Your task to perform on an android device: Open Google Maps and go to "Timeline" Image 0: 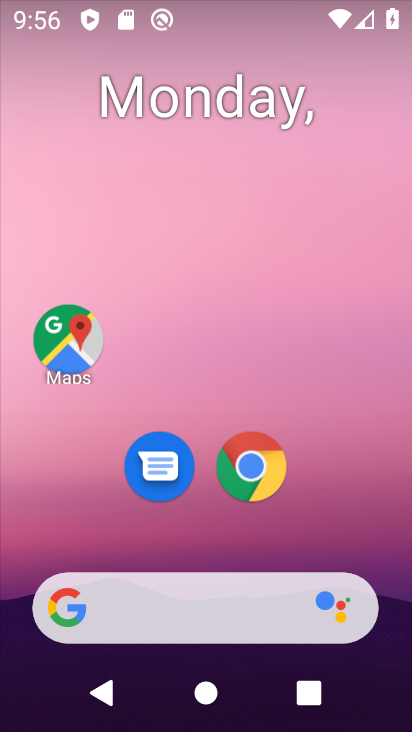
Step 0: click (64, 340)
Your task to perform on an android device: Open Google Maps and go to "Timeline" Image 1: 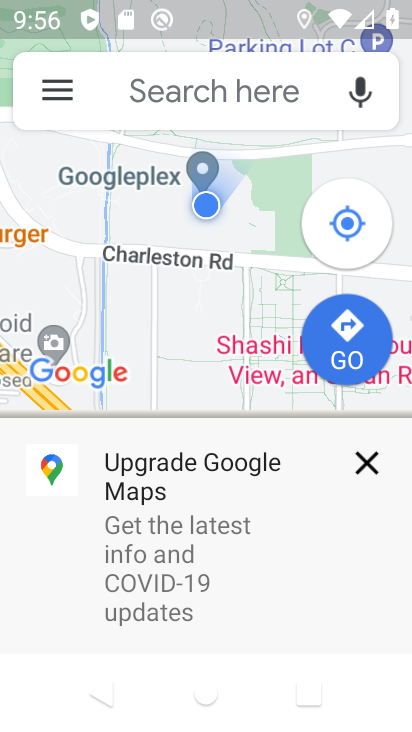
Step 1: click (369, 458)
Your task to perform on an android device: Open Google Maps and go to "Timeline" Image 2: 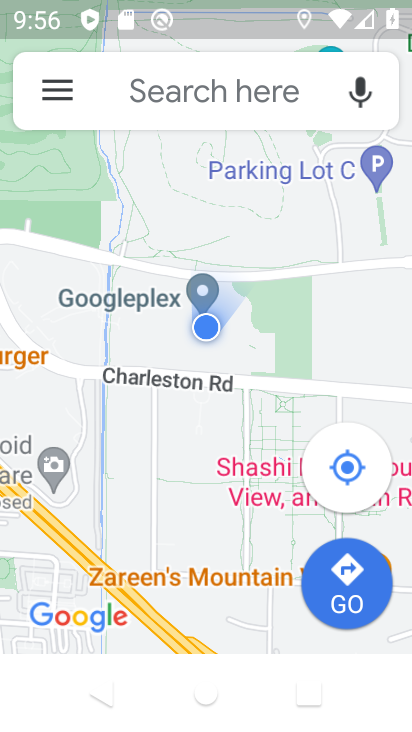
Step 2: click (50, 85)
Your task to perform on an android device: Open Google Maps and go to "Timeline" Image 3: 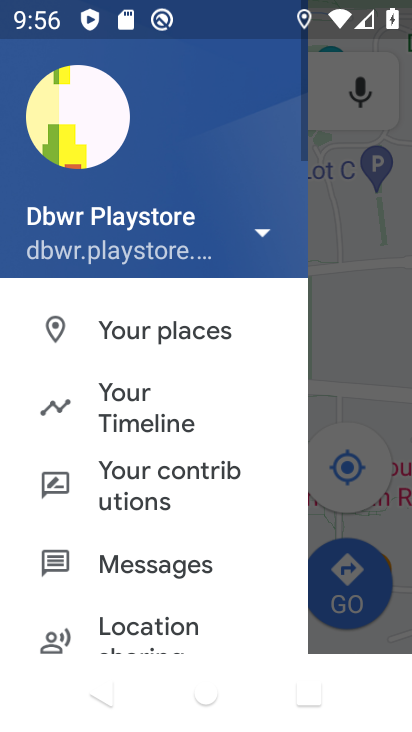
Step 3: click (168, 400)
Your task to perform on an android device: Open Google Maps and go to "Timeline" Image 4: 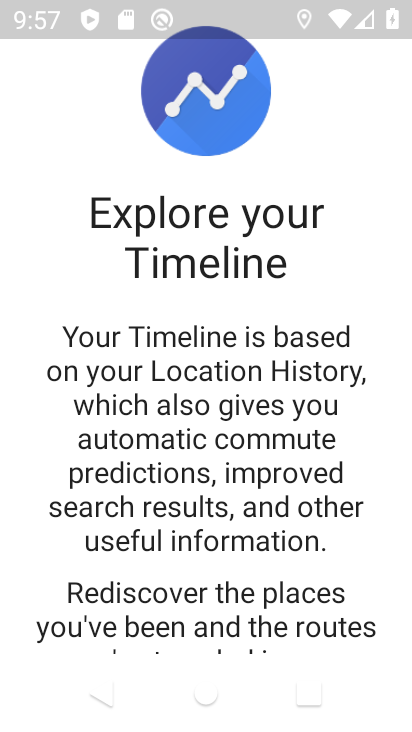
Step 4: task complete